Your task to perform on an android device: Check the weather Image 0: 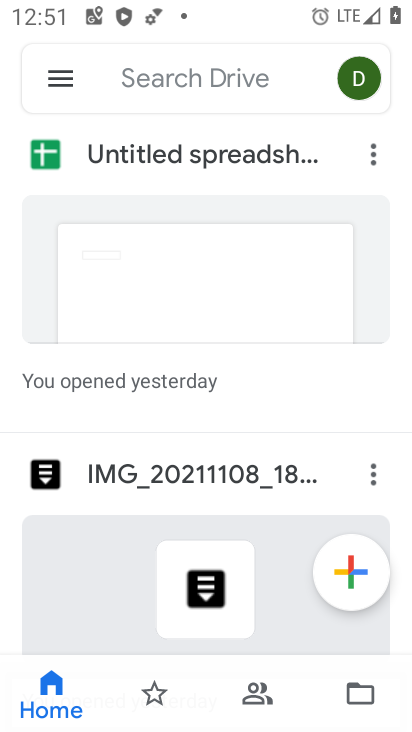
Step 0: press home button
Your task to perform on an android device: Check the weather Image 1: 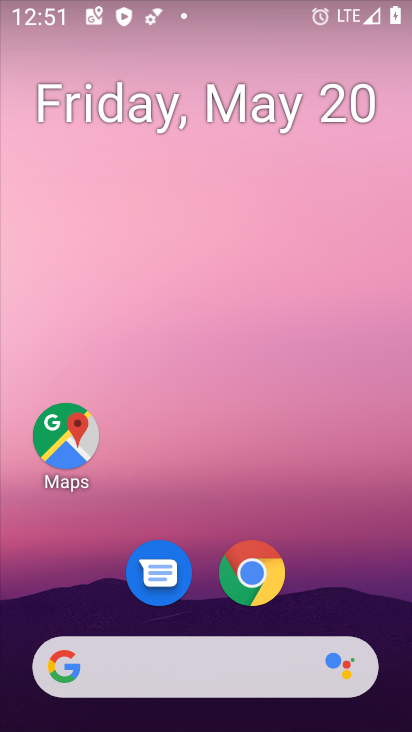
Step 1: drag from (212, 586) to (221, 78)
Your task to perform on an android device: Check the weather Image 2: 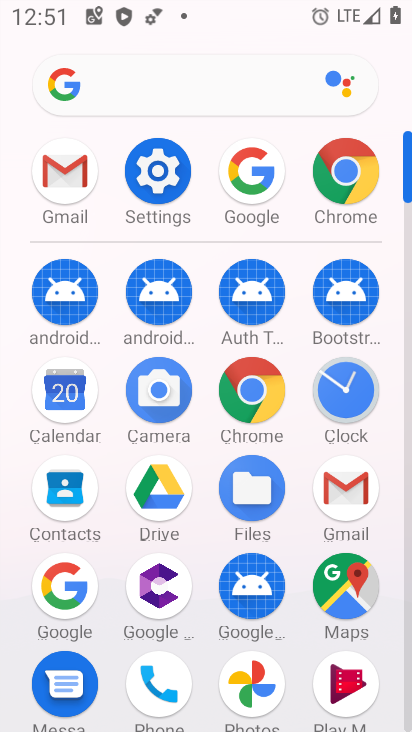
Step 2: click (252, 187)
Your task to perform on an android device: Check the weather Image 3: 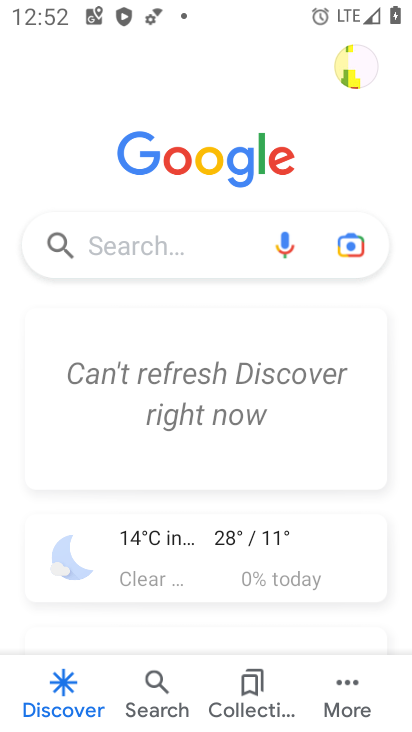
Step 3: click (167, 237)
Your task to perform on an android device: Check the weather Image 4: 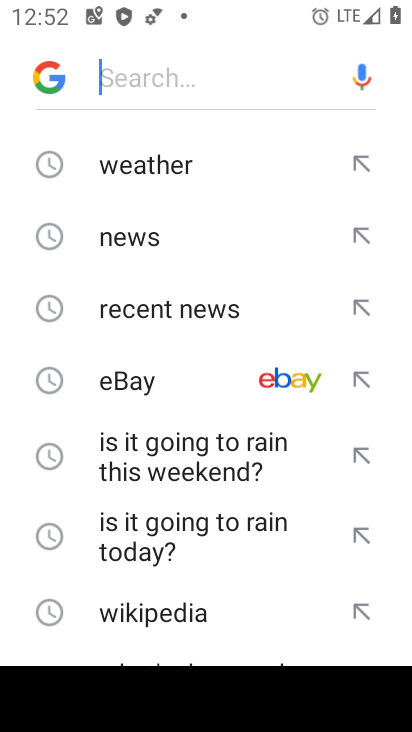
Step 4: click (163, 183)
Your task to perform on an android device: Check the weather Image 5: 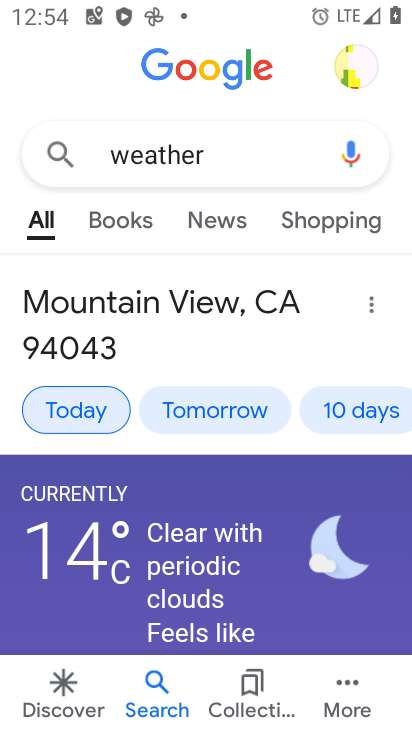
Step 5: task complete